Your task to perform on an android device: Go to CNN.com Image 0: 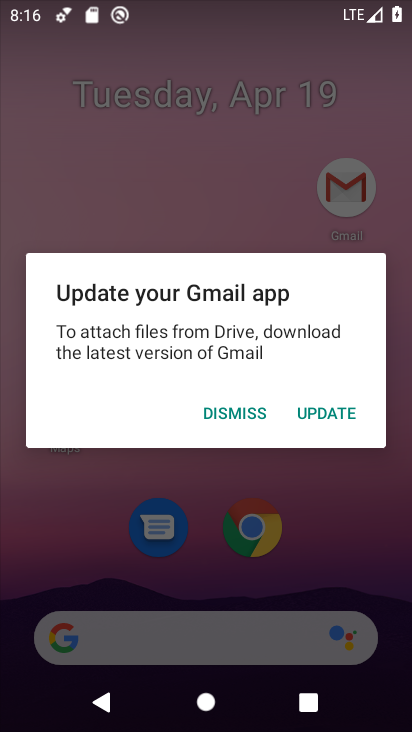
Step 0: press home button
Your task to perform on an android device: Go to CNN.com Image 1: 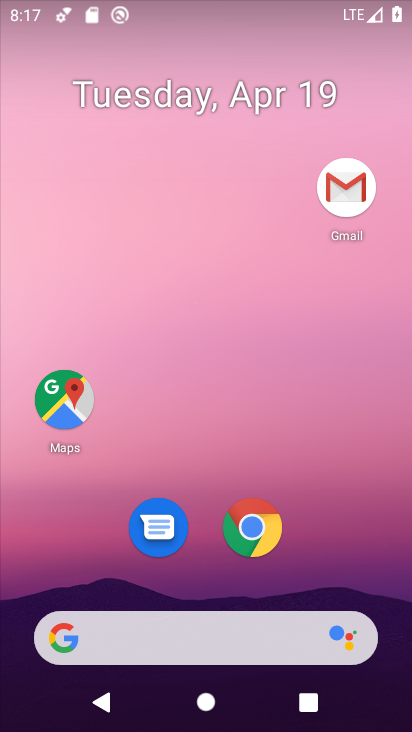
Step 1: click (260, 533)
Your task to perform on an android device: Go to CNN.com Image 2: 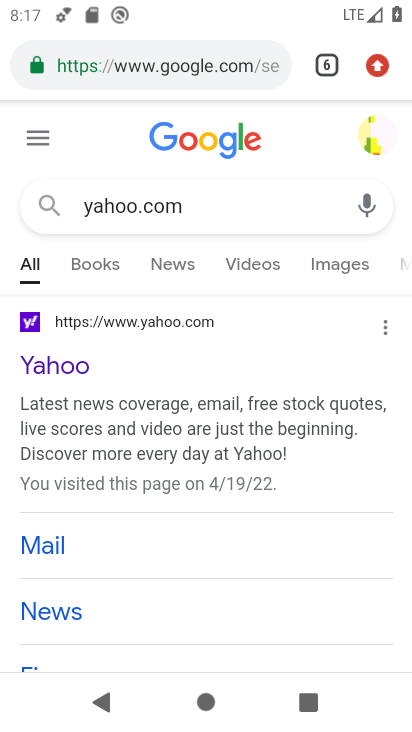
Step 2: click (185, 205)
Your task to perform on an android device: Go to CNN.com Image 3: 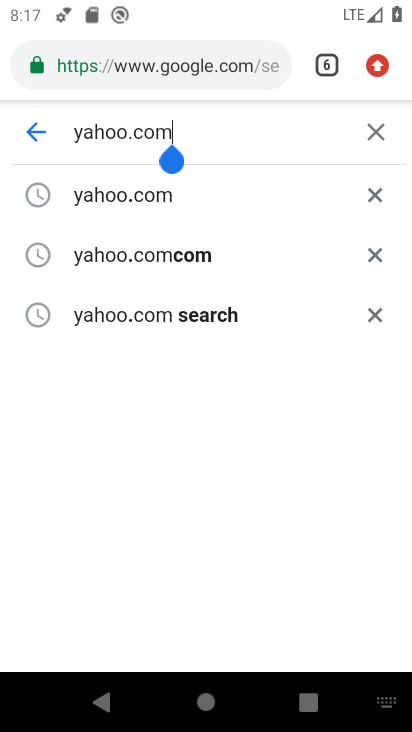
Step 3: click (371, 131)
Your task to perform on an android device: Go to CNN.com Image 4: 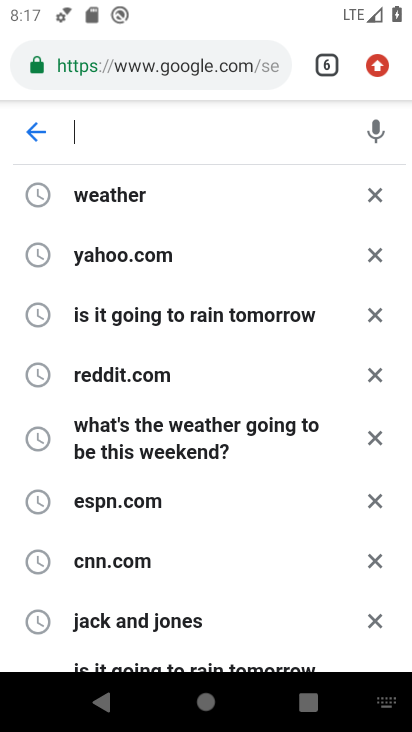
Step 4: type "cnn.com"
Your task to perform on an android device: Go to CNN.com Image 5: 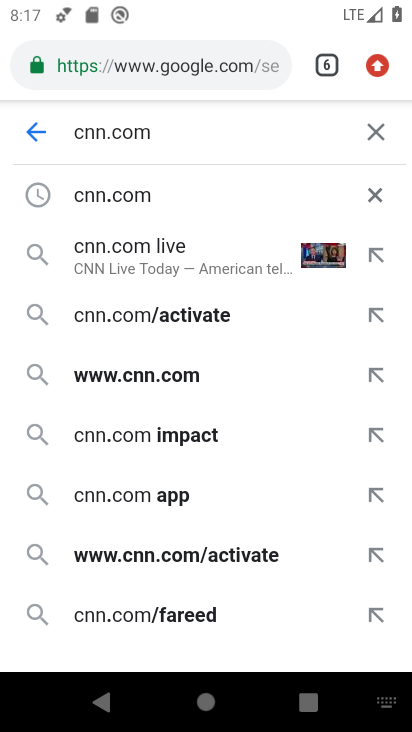
Step 5: click (113, 198)
Your task to perform on an android device: Go to CNN.com Image 6: 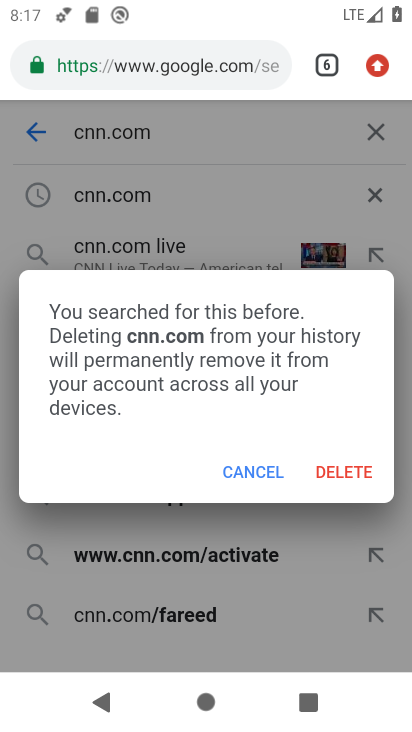
Step 6: click (338, 467)
Your task to perform on an android device: Go to CNN.com Image 7: 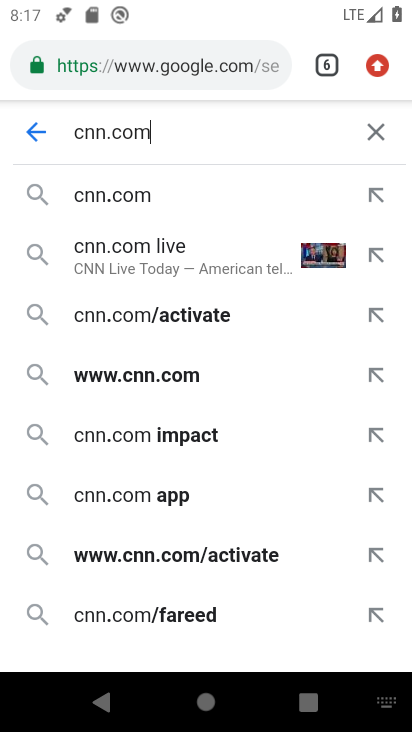
Step 7: click (108, 200)
Your task to perform on an android device: Go to CNN.com Image 8: 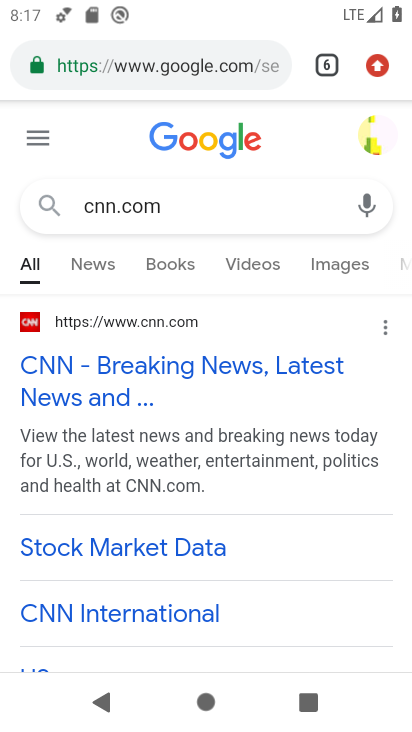
Step 8: click (109, 372)
Your task to perform on an android device: Go to CNN.com Image 9: 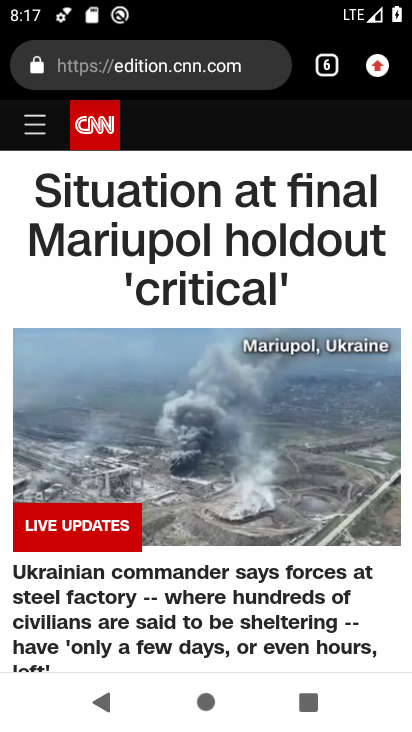
Step 9: task complete